Your task to perform on an android device: find snoozed emails in the gmail app Image 0: 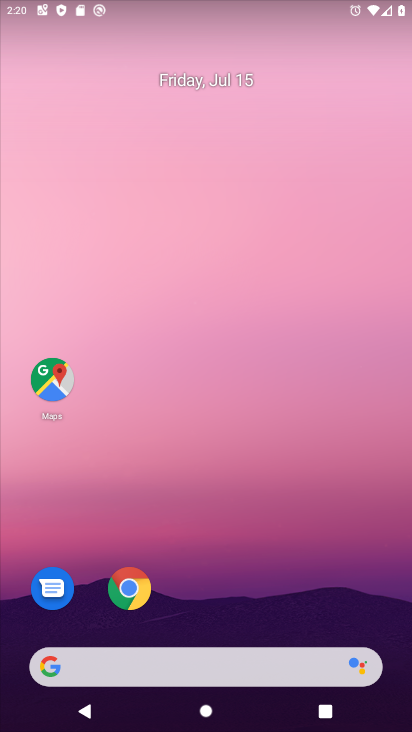
Step 0: drag from (171, 669) to (263, 168)
Your task to perform on an android device: find snoozed emails in the gmail app Image 1: 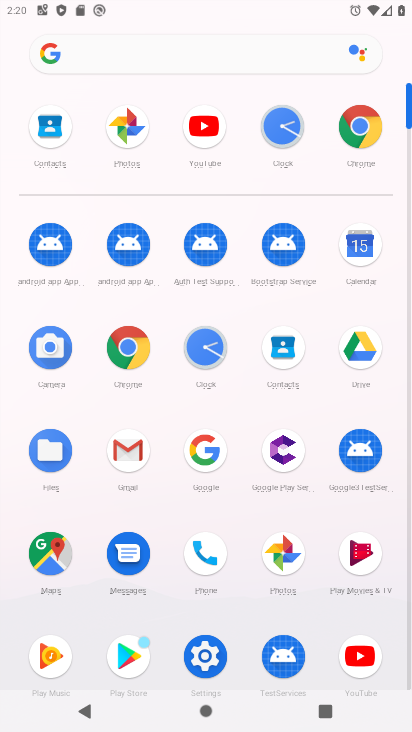
Step 1: click (127, 446)
Your task to perform on an android device: find snoozed emails in the gmail app Image 2: 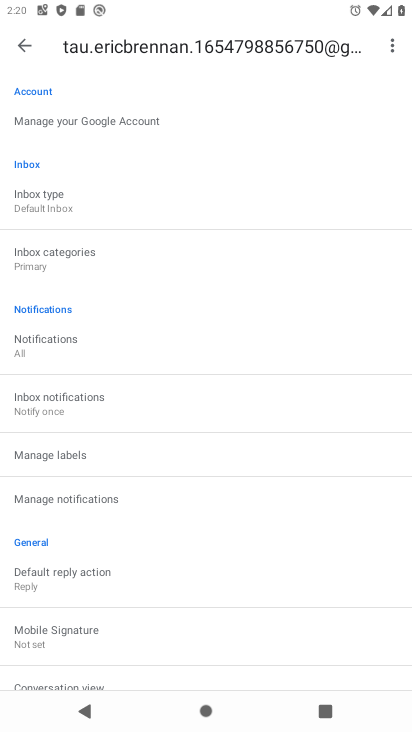
Step 2: press back button
Your task to perform on an android device: find snoozed emails in the gmail app Image 3: 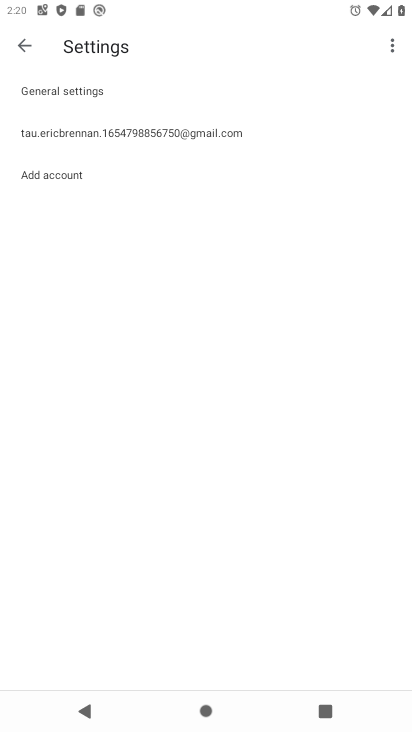
Step 3: press back button
Your task to perform on an android device: find snoozed emails in the gmail app Image 4: 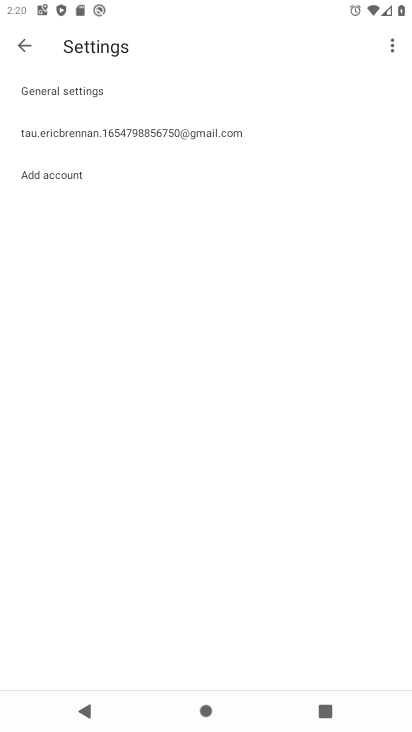
Step 4: press back button
Your task to perform on an android device: find snoozed emails in the gmail app Image 5: 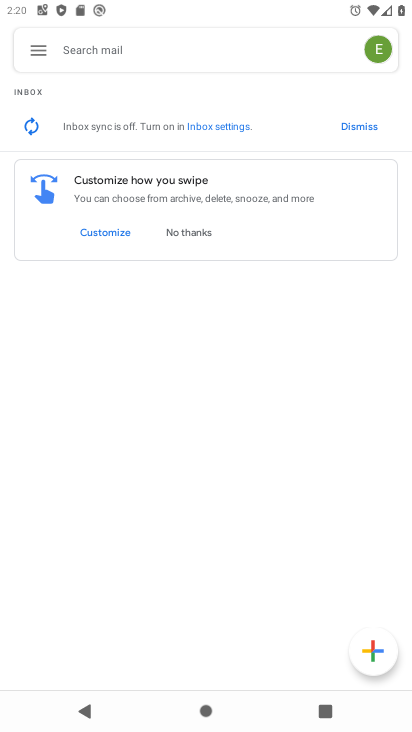
Step 5: click (41, 55)
Your task to perform on an android device: find snoozed emails in the gmail app Image 6: 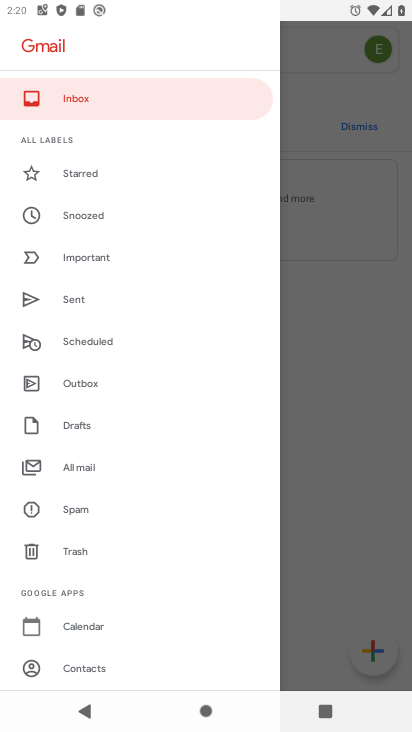
Step 6: click (88, 463)
Your task to perform on an android device: find snoozed emails in the gmail app Image 7: 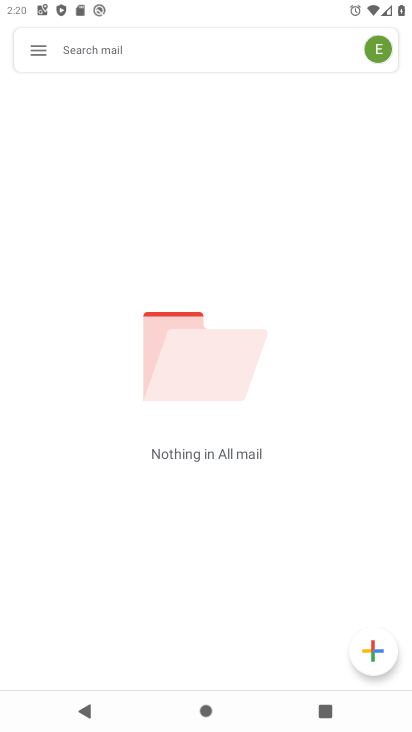
Step 7: click (30, 53)
Your task to perform on an android device: find snoozed emails in the gmail app Image 8: 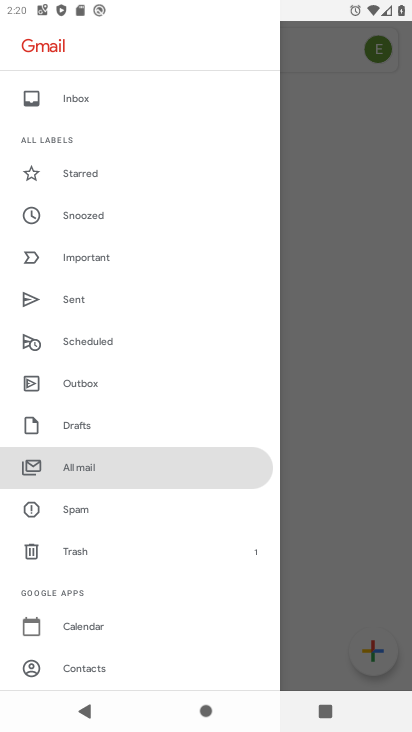
Step 8: click (77, 164)
Your task to perform on an android device: find snoozed emails in the gmail app Image 9: 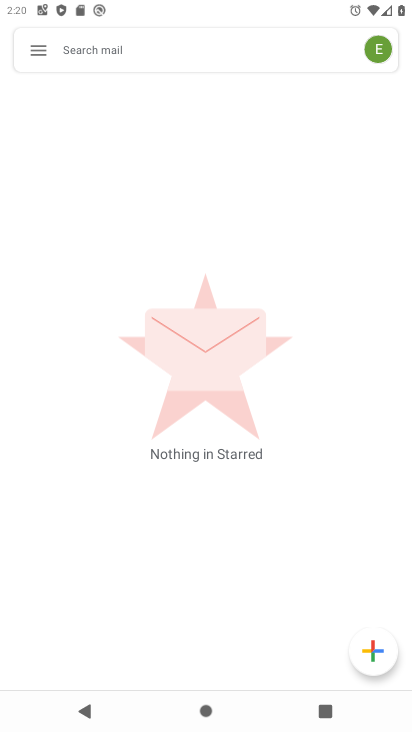
Step 9: click (42, 50)
Your task to perform on an android device: find snoozed emails in the gmail app Image 10: 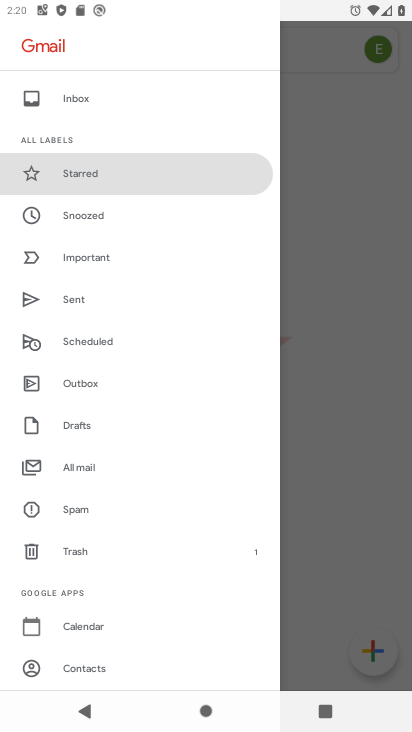
Step 10: click (71, 216)
Your task to perform on an android device: find snoozed emails in the gmail app Image 11: 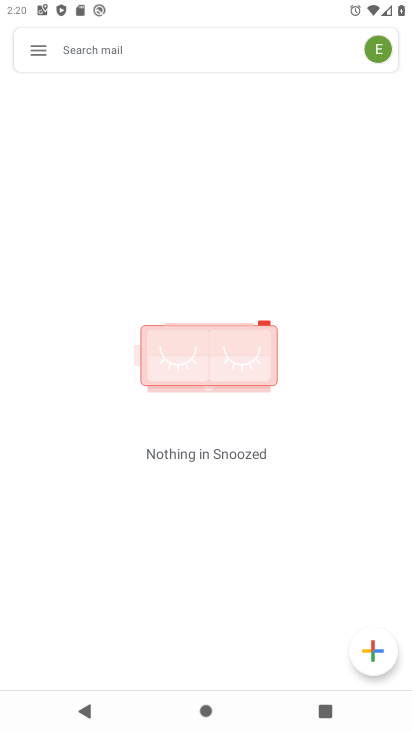
Step 11: click (32, 48)
Your task to perform on an android device: find snoozed emails in the gmail app Image 12: 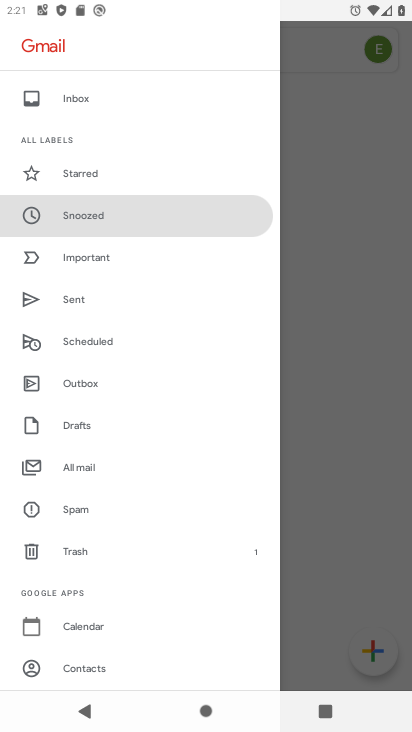
Step 12: click (73, 255)
Your task to perform on an android device: find snoozed emails in the gmail app Image 13: 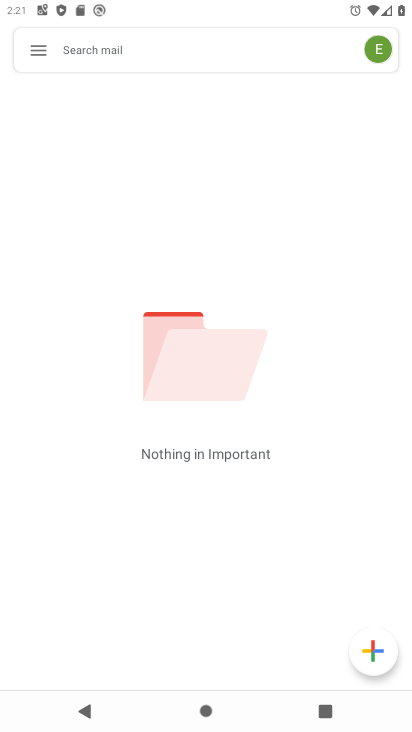
Step 13: click (41, 53)
Your task to perform on an android device: find snoozed emails in the gmail app Image 14: 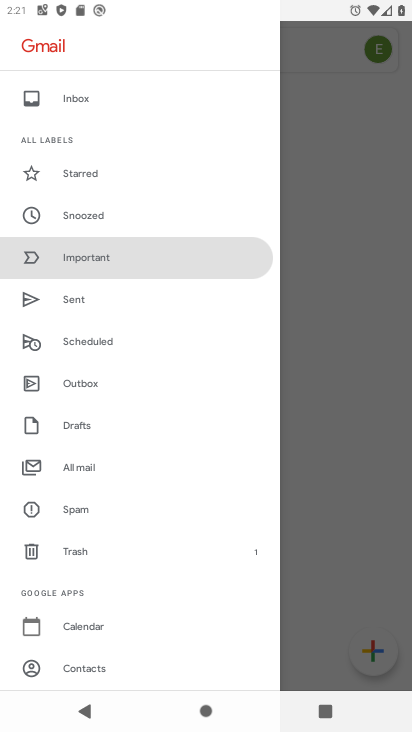
Step 14: click (70, 294)
Your task to perform on an android device: find snoozed emails in the gmail app Image 15: 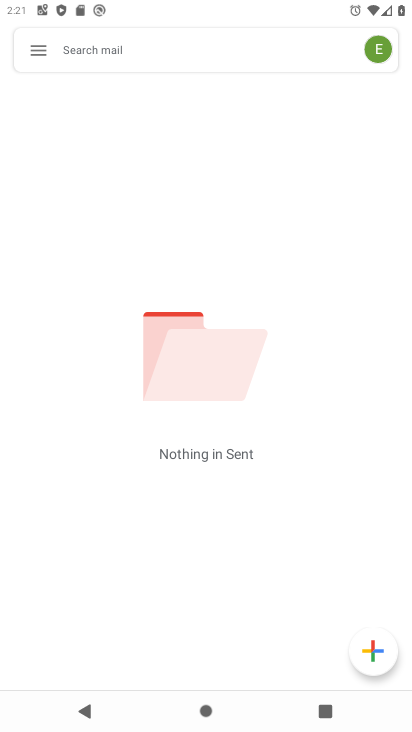
Step 15: click (38, 51)
Your task to perform on an android device: find snoozed emails in the gmail app Image 16: 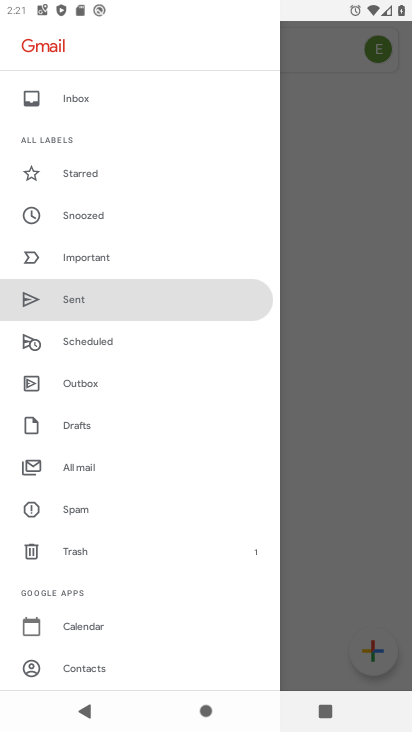
Step 16: click (108, 340)
Your task to perform on an android device: find snoozed emails in the gmail app Image 17: 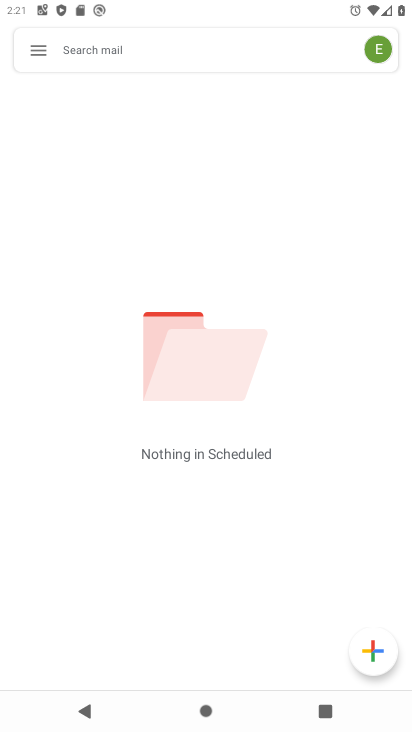
Step 17: click (33, 48)
Your task to perform on an android device: find snoozed emails in the gmail app Image 18: 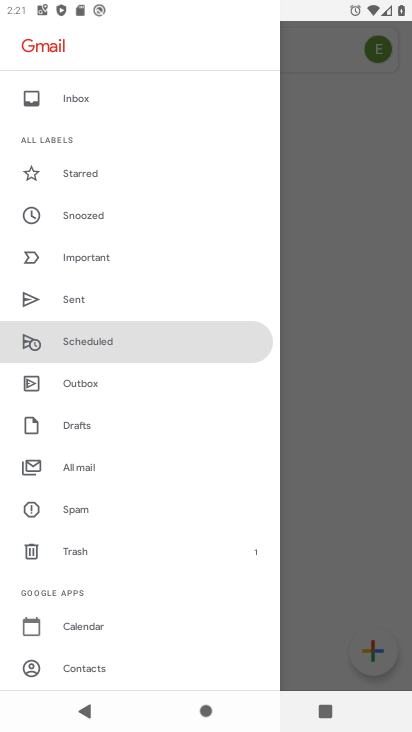
Step 18: click (84, 382)
Your task to perform on an android device: find snoozed emails in the gmail app Image 19: 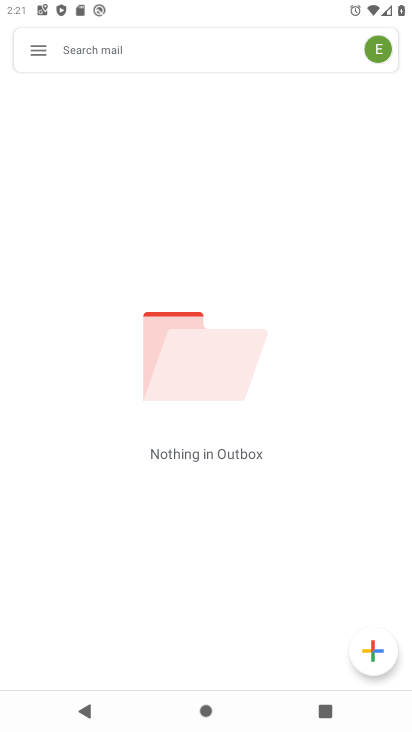
Step 19: click (31, 49)
Your task to perform on an android device: find snoozed emails in the gmail app Image 20: 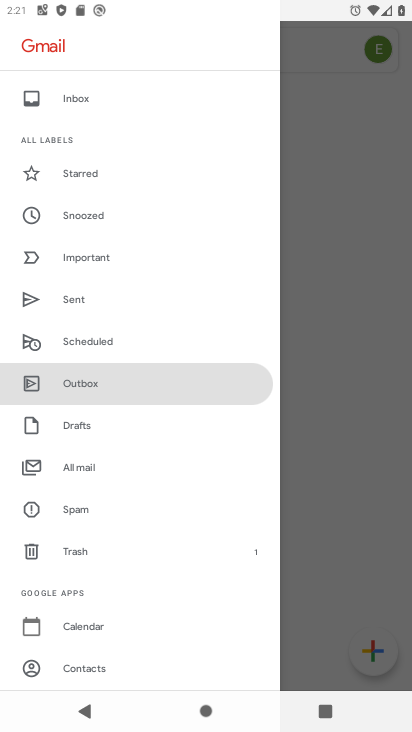
Step 20: click (75, 422)
Your task to perform on an android device: find snoozed emails in the gmail app Image 21: 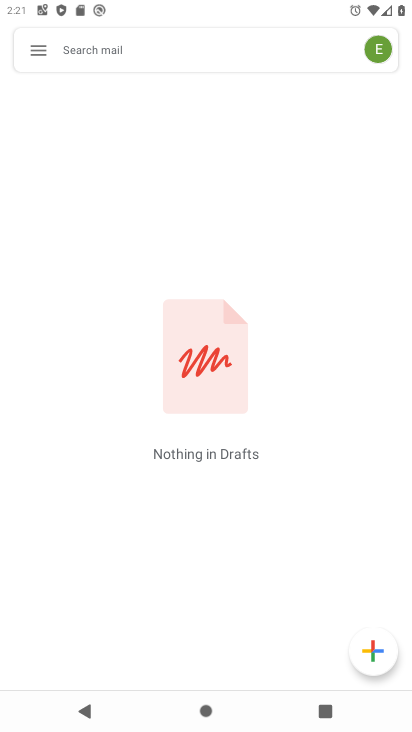
Step 21: click (41, 48)
Your task to perform on an android device: find snoozed emails in the gmail app Image 22: 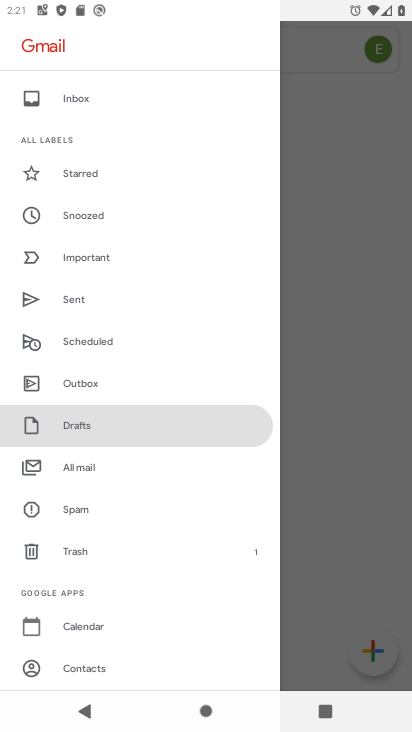
Step 22: click (85, 467)
Your task to perform on an android device: find snoozed emails in the gmail app Image 23: 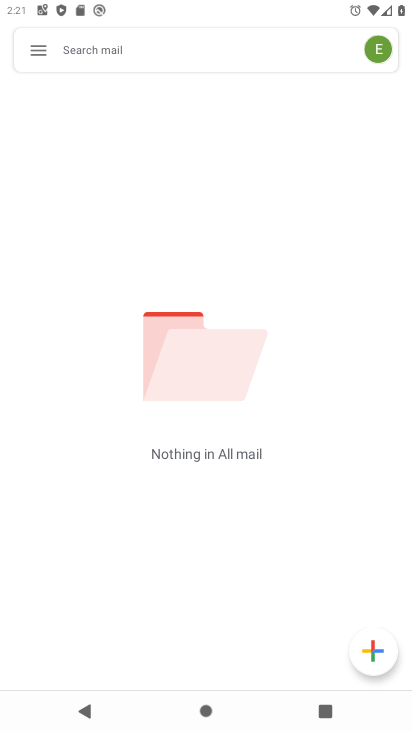
Step 23: task complete